Your task to perform on an android device: Check the weather Image 0: 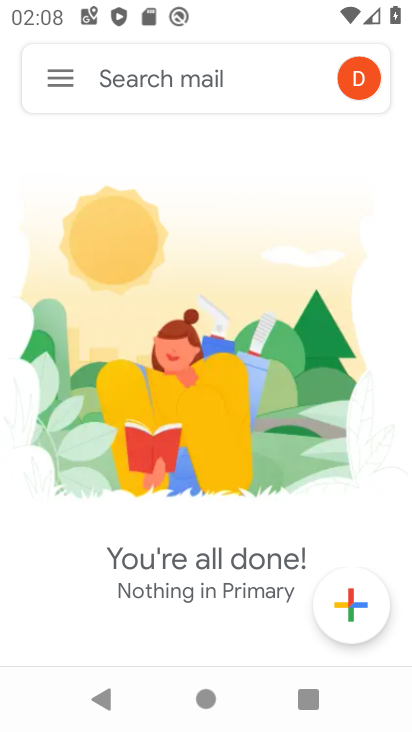
Step 0: press home button
Your task to perform on an android device: Check the weather Image 1: 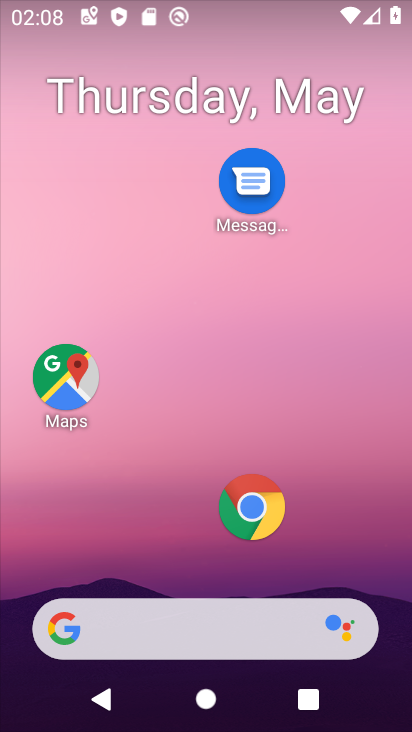
Step 1: drag from (349, 603) to (335, 17)
Your task to perform on an android device: Check the weather Image 2: 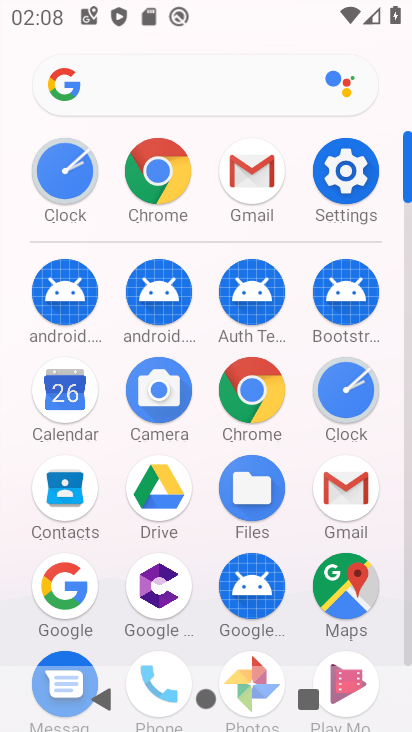
Step 2: click (274, 386)
Your task to perform on an android device: Check the weather Image 3: 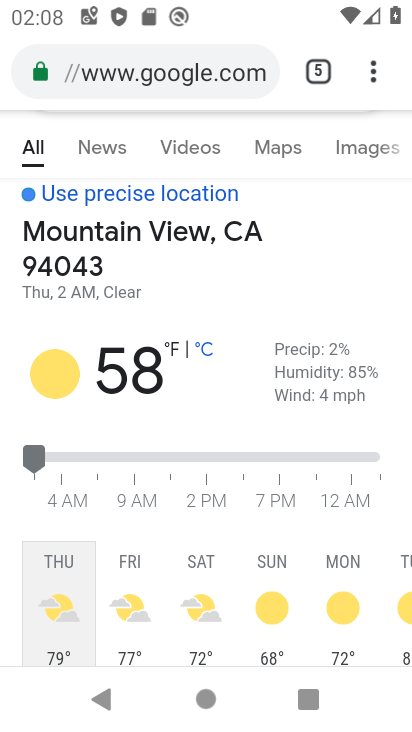
Step 3: click (200, 77)
Your task to perform on an android device: Check the weather Image 4: 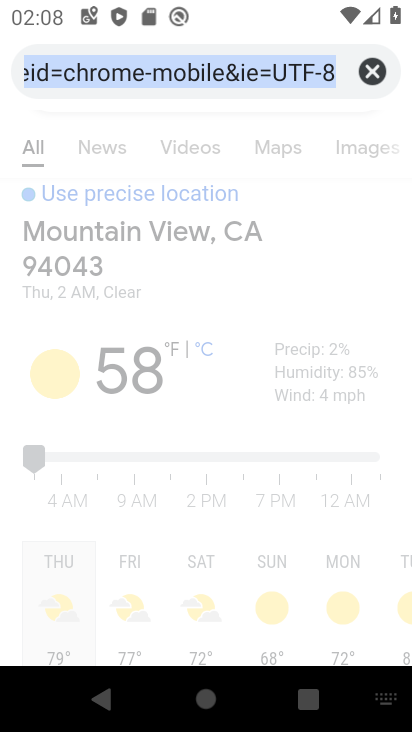
Step 4: press home button
Your task to perform on an android device: Check the weather Image 5: 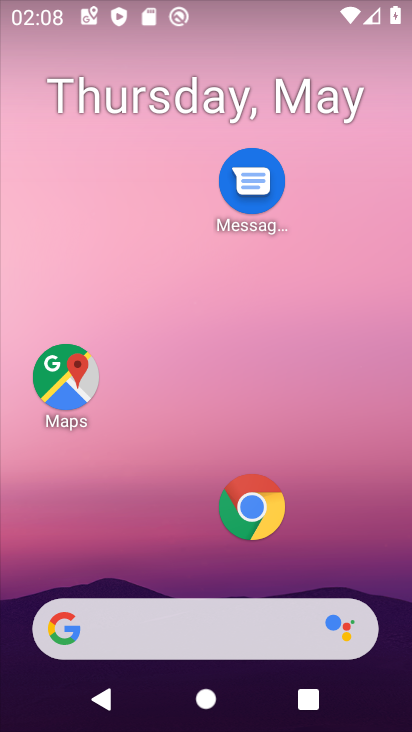
Step 5: drag from (37, 273) to (411, 309)
Your task to perform on an android device: Check the weather Image 6: 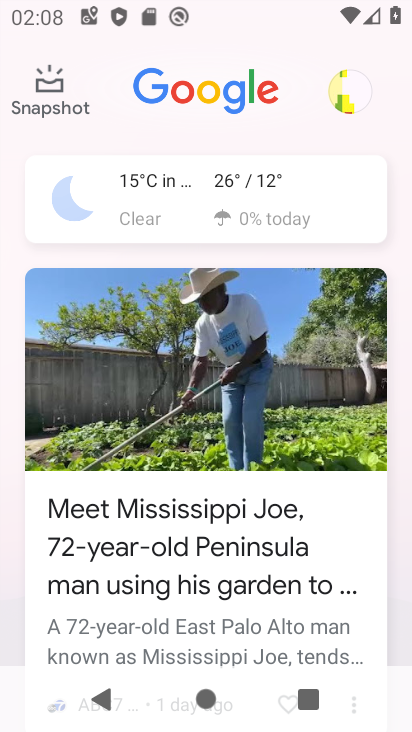
Step 6: click (291, 200)
Your task to perform on an android device: Check the weather Image 7: 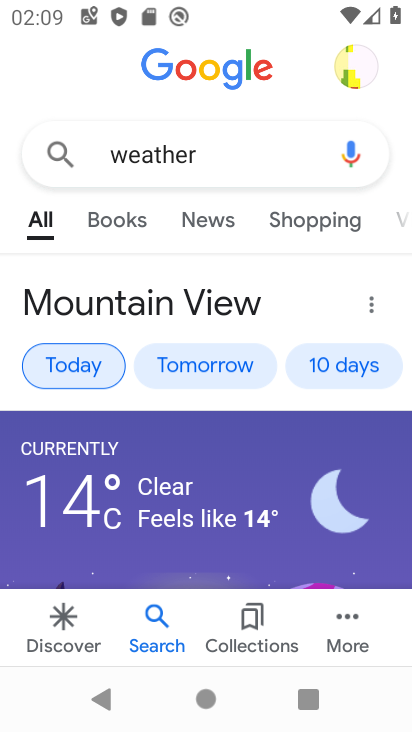
Step 7: task complete